Your task to perform on an android device: What is the recent news? Image 0: 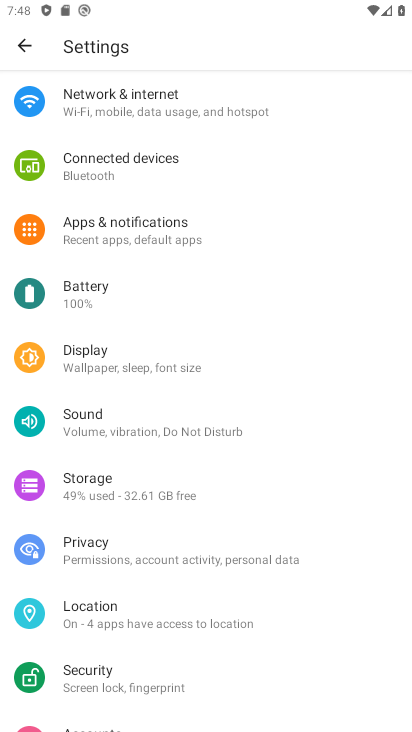
Step 0: press home button
Your task to perform on an android device: What is the recent news? Image 1: 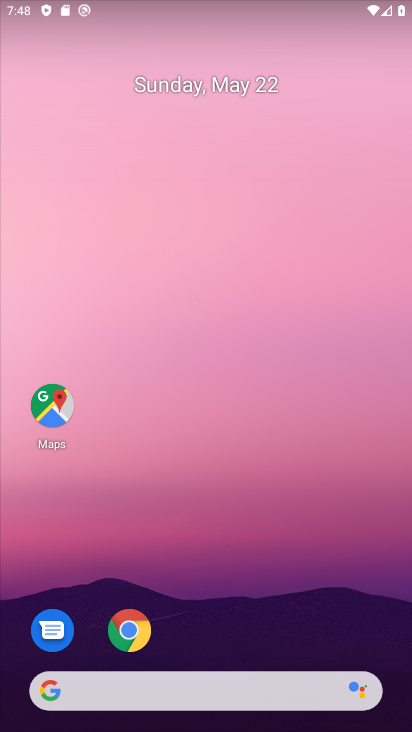
Step 1: click (271, 611)
Your task to perform on an android device: What is the recent news? Image 2: 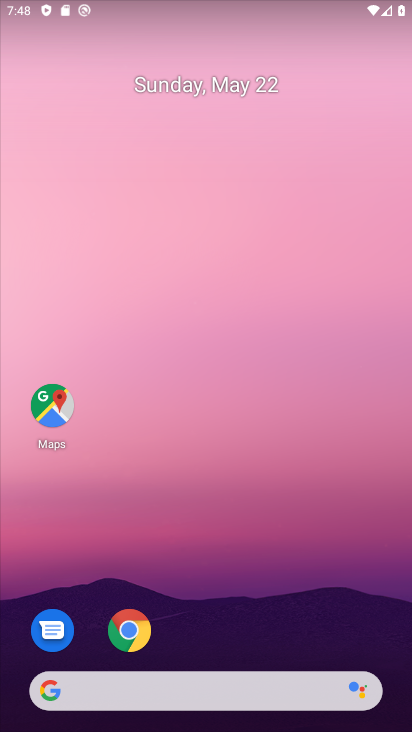
Step 2: click (223, 703)
Your task to perform on an android device: What is the recent news? Image 3: 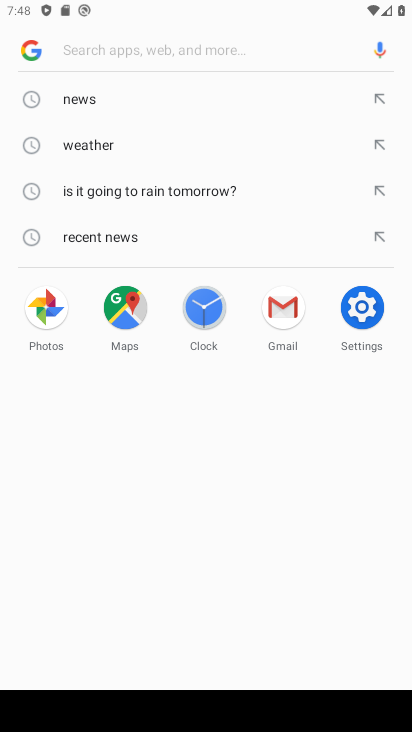
Step 3: click (110, 86)
Your task to perform on an android device: What is the recent news? Image 4: 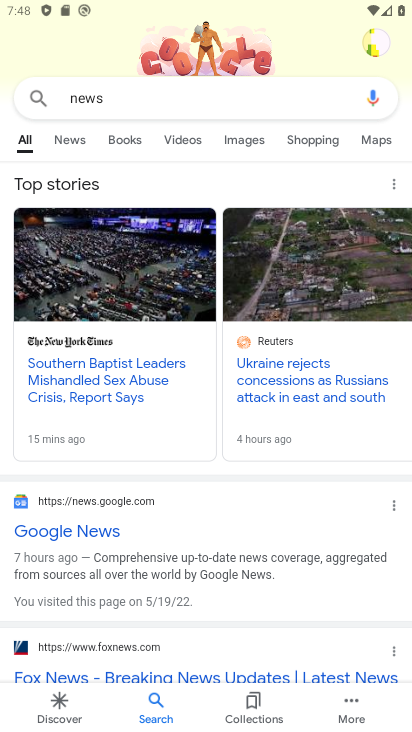
Step 4: task complete